Your task to perform on an android device: Add "logitech g pro" to the cart on ebay Image 0: 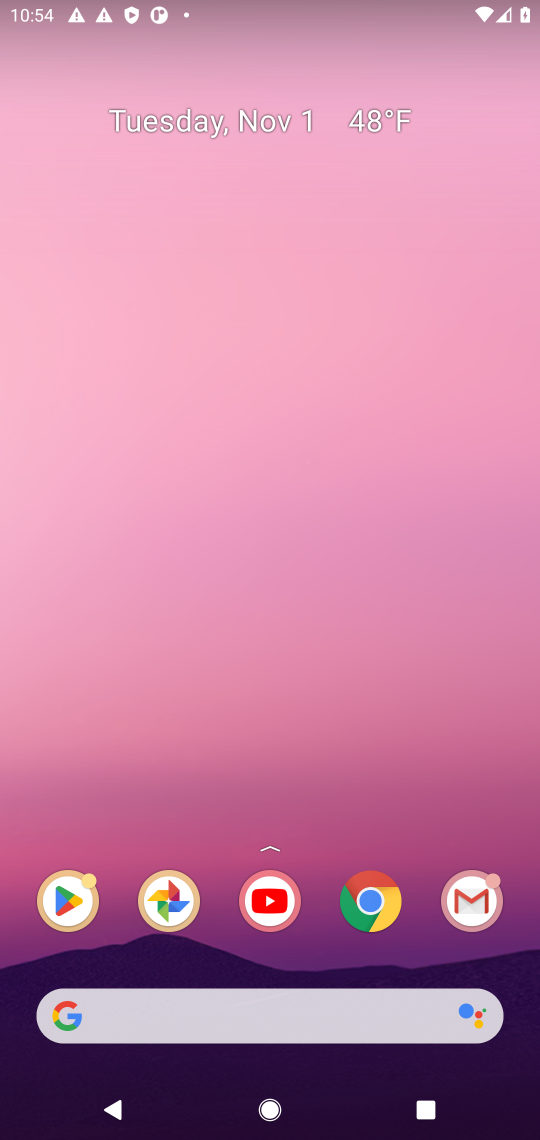
Step 0: drag from (318, 968) to (387, 225)
Your task to perform on an android device: Add "logitech g pro" to the cart on ebay Image 1: 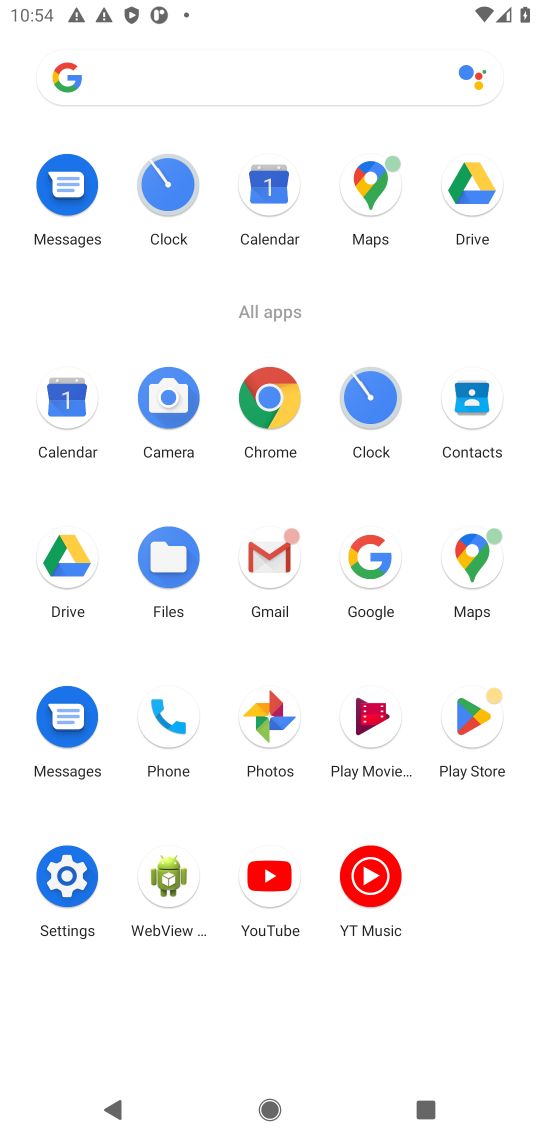
Step 1: click (267, 392)
Your task to perform on an android device: Add "logitech g pro" to the cart on ebay Image 2: 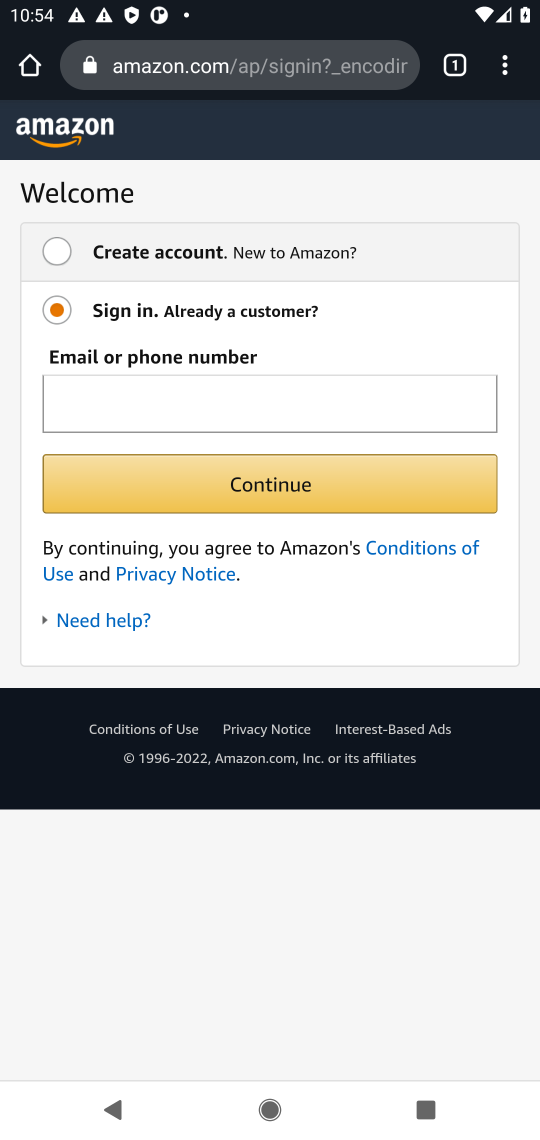
Step 2: click (231, 78)
Your task to perform on an android device: Add "logitech g pro" to the cart on ebay Image 3: 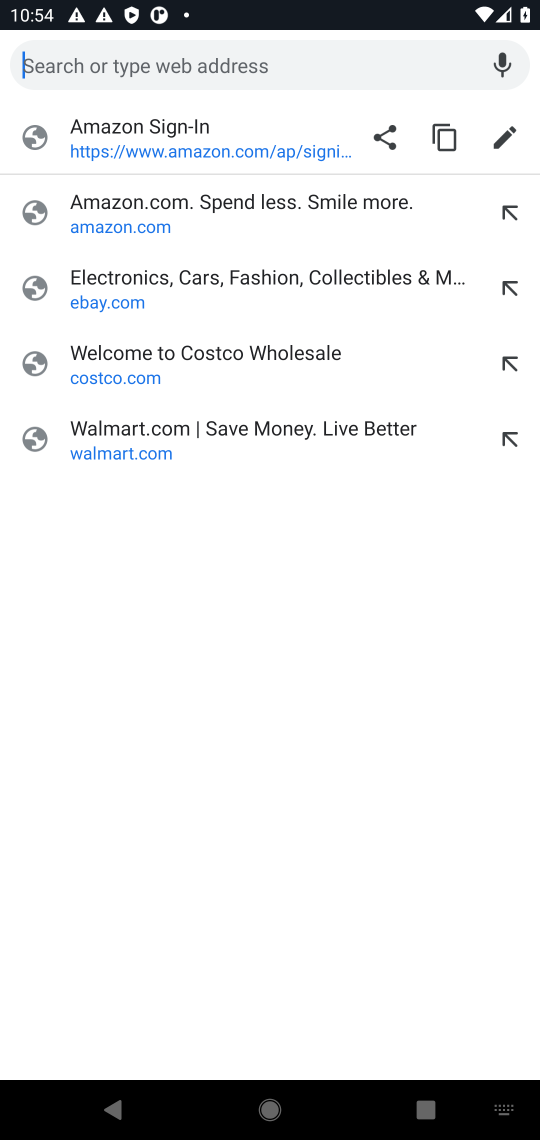
Step 3: type "ebay.com"
Your task to perform on an android device: Add "logitech g pro" to the cart on ebay Image 4: 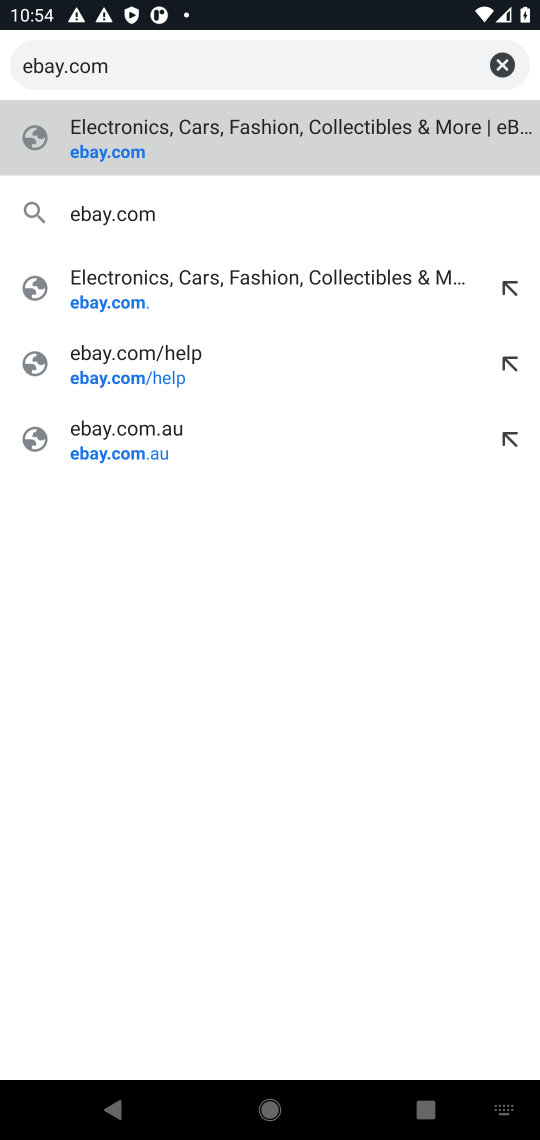
Step 4: press enter
Your task to perform on an android device: Add "logitech g pro" to the cart on ebay Image 5: 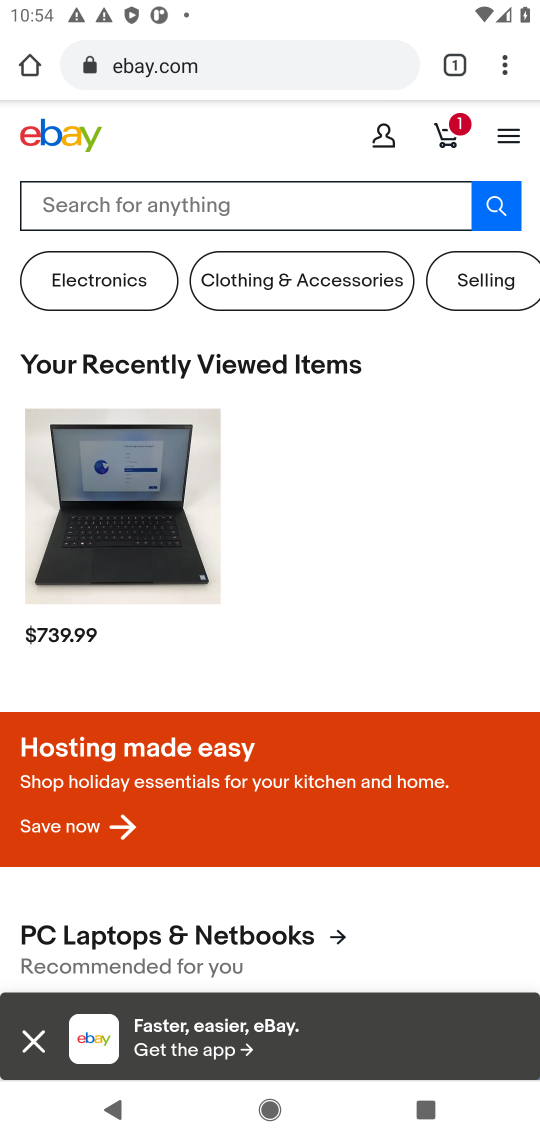
Step 5: click (270, 204)
Your task to perform on an android device: Add "logitech g pro" to the cart on ebay Image 6: 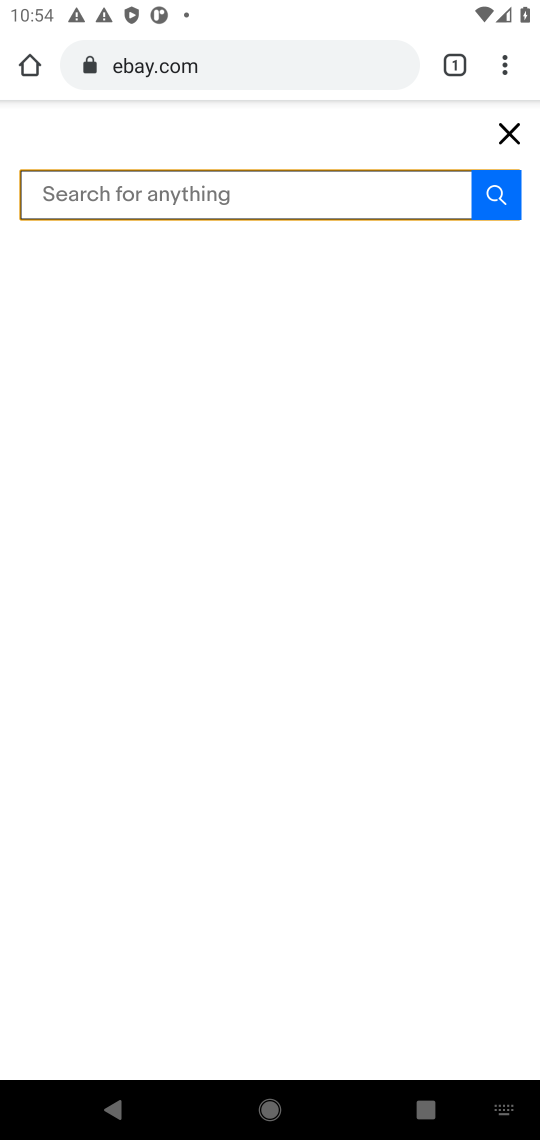
Step 6: type "logitech g pro"
Your task to perform on an android device: Add "logitech g pro" to the cart on ebay Image 7: 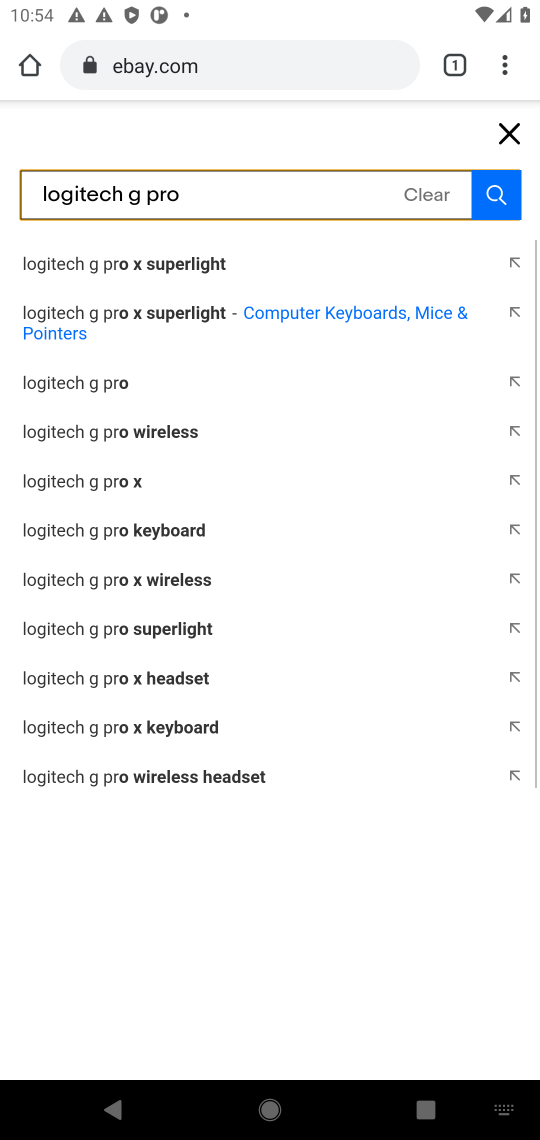
Step 7: press enter
Your task to perform on an android device: Add "logitech g pro" to the cart on ebay Image 8: 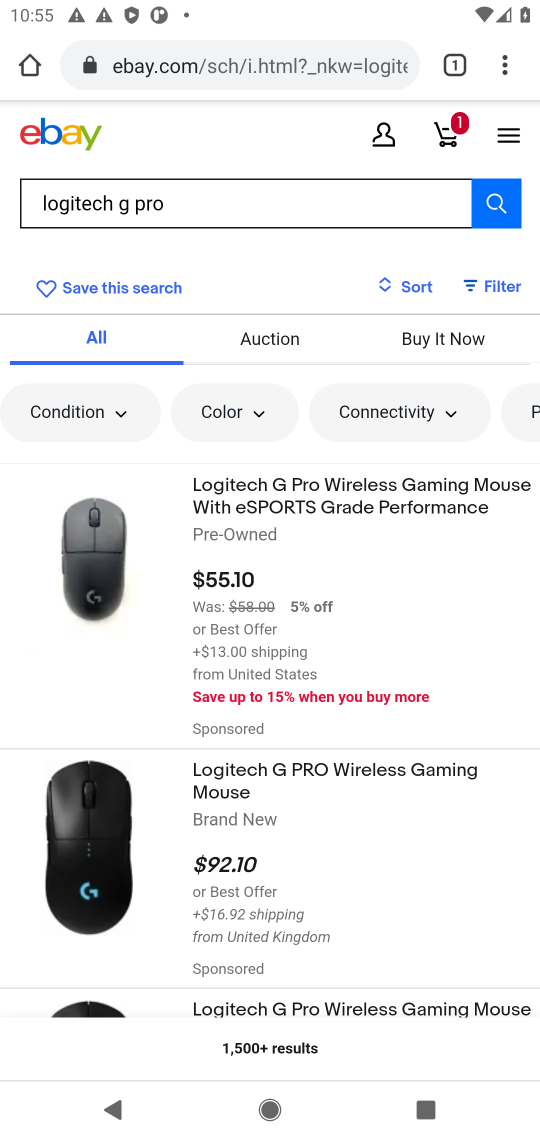
Step 8: click (103, 571)
Your task to perform on an android device: Add "logitech g pro" to the cart on ebay Image 9: 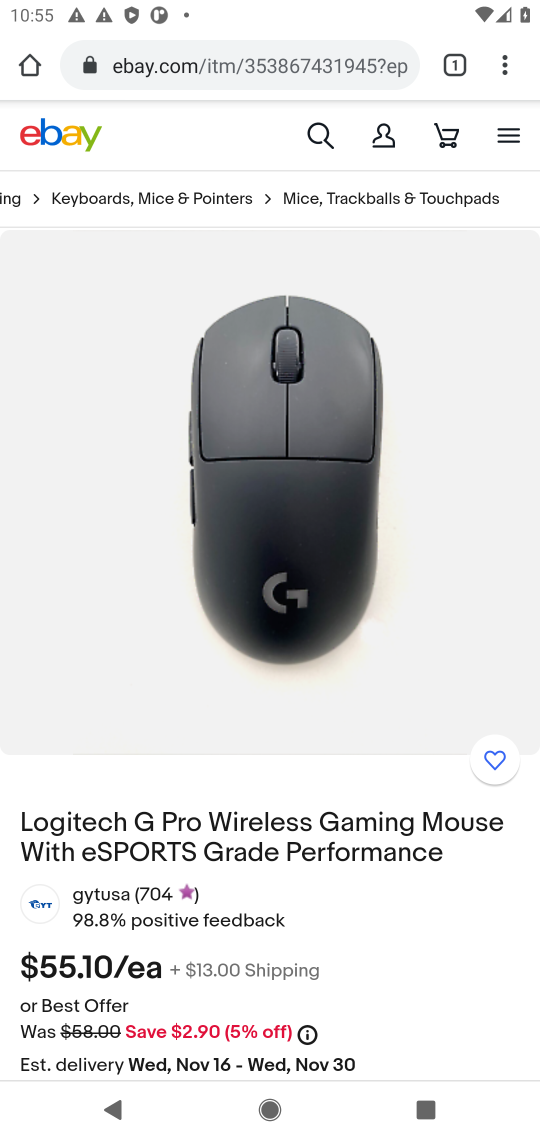
Step 9: drag from (329, 977) to (358, 244)
Your task to perform on an android device: Add "logitech g pro" to the cart on ebay Image 10: 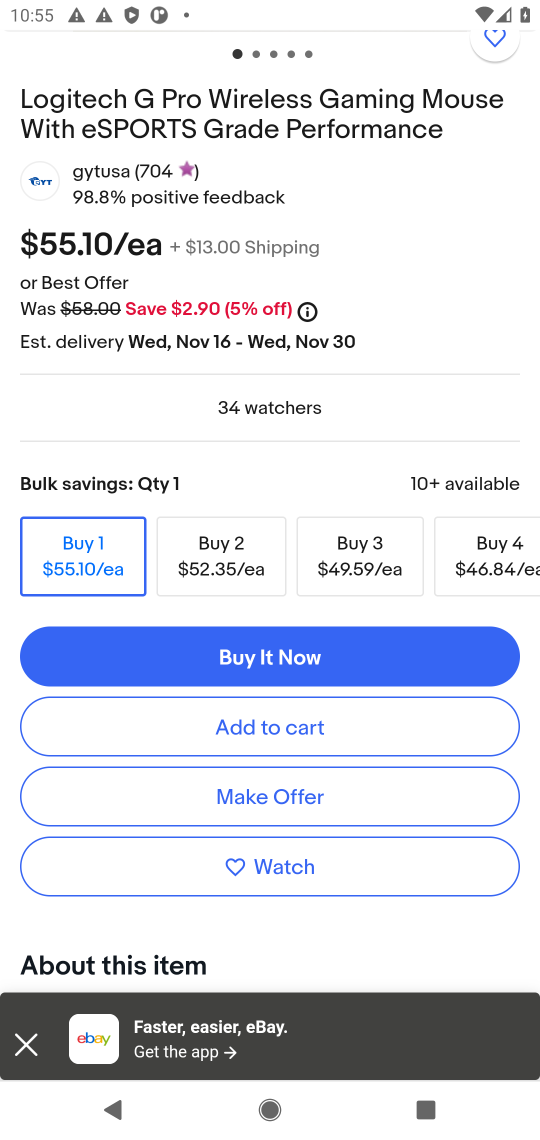
Step 10: click (347, 721)
Your task to perform on an android device: Add "logitech g pro" to the cart on ebay Image 11: 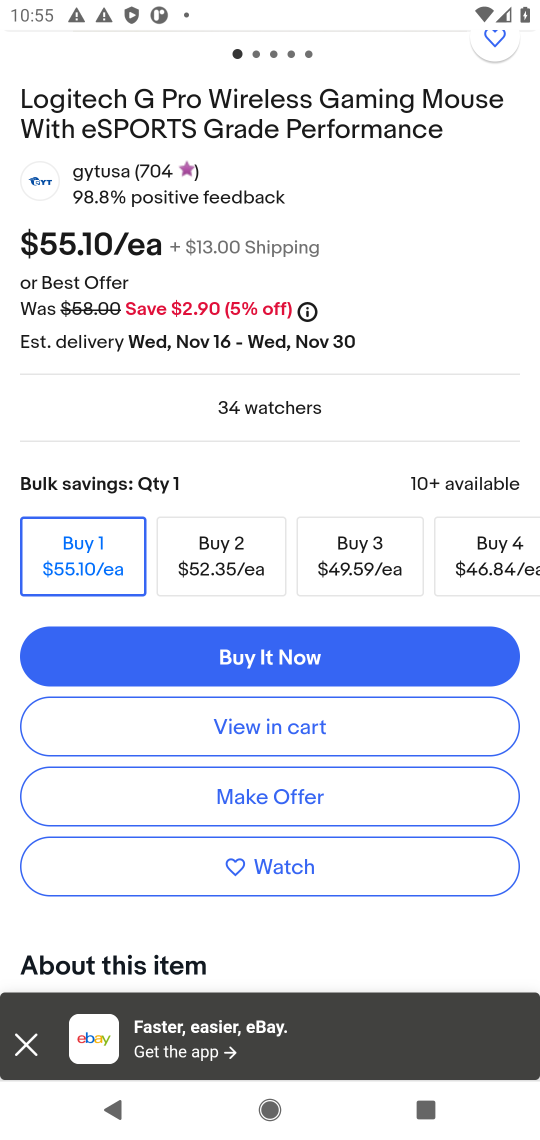
Step 11: task complete